Your task to perform on an android device: turn on location history Image 0: 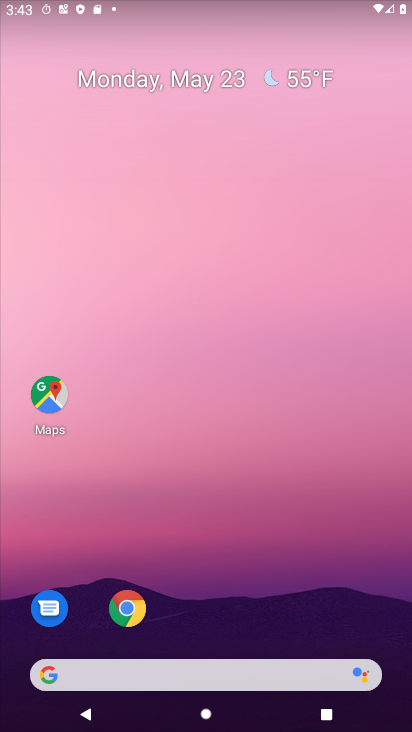
Step 0: drag from (240, 236) to (231, 5)
Your task to perform on an android device: turn on location history Image 1: 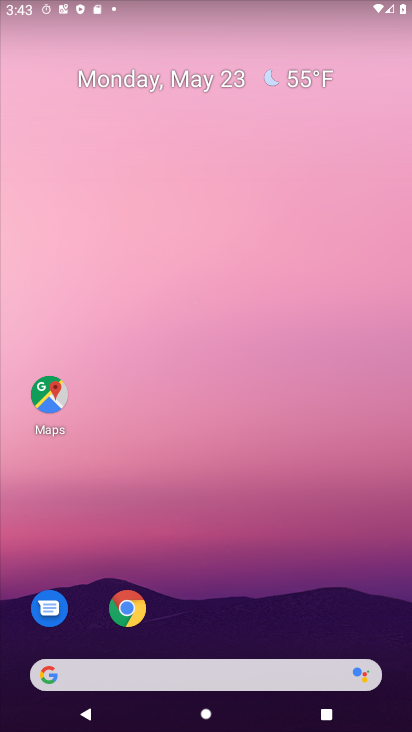
Step 1: drag from (286, 558) to (181, 11)
Your task to perform on an android device: turn on location history Image 2: 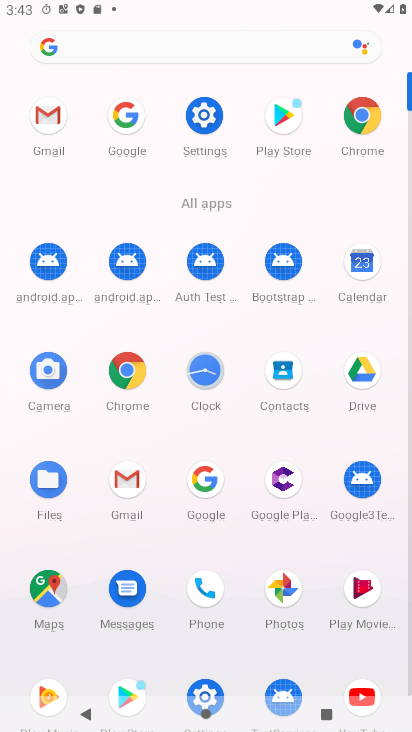
Step 2: click (211, 120)
Your task to perform on an android device: turn on location history Image 3: 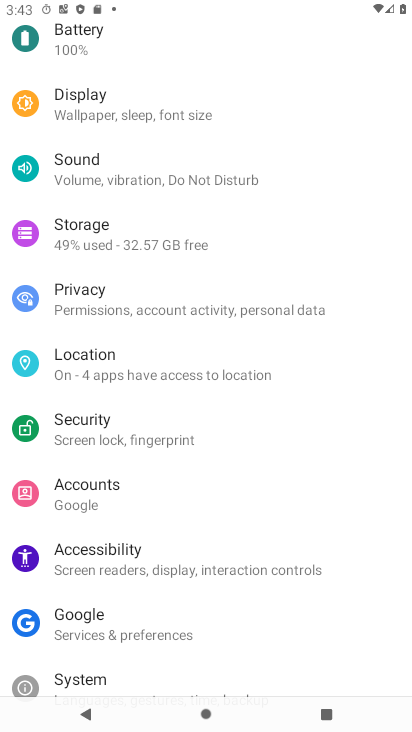
Step 3: click (212, 373)
Your task to perform on an android device: turn on location history Image 4: 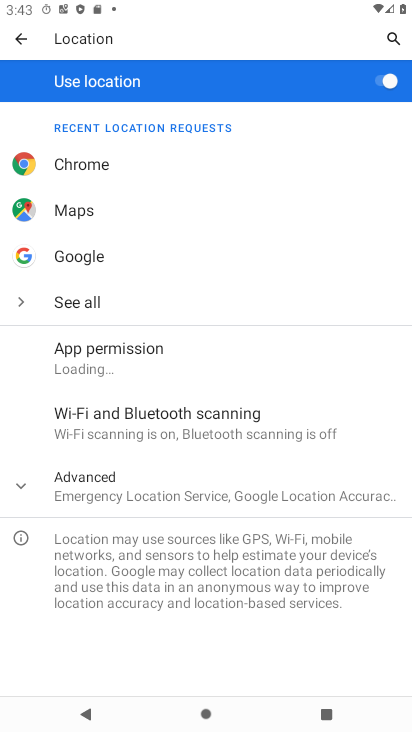
Step 4: click (165, 488)
Your task to perform on an android device: turn on location history Image 5: 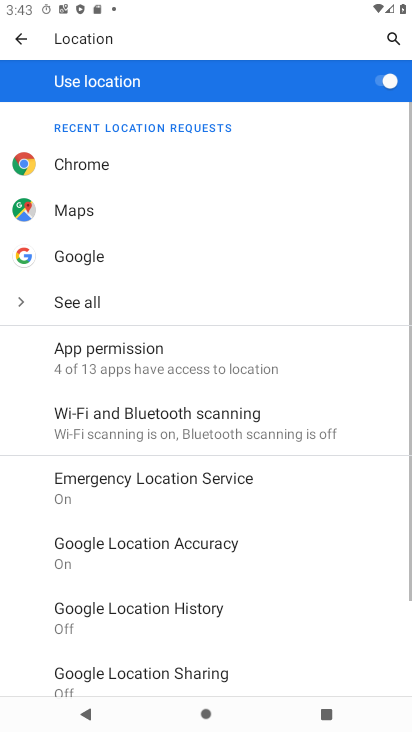
Step 5: click (259, 617)
Your task to perform on an android device: turn on location history Image 6: 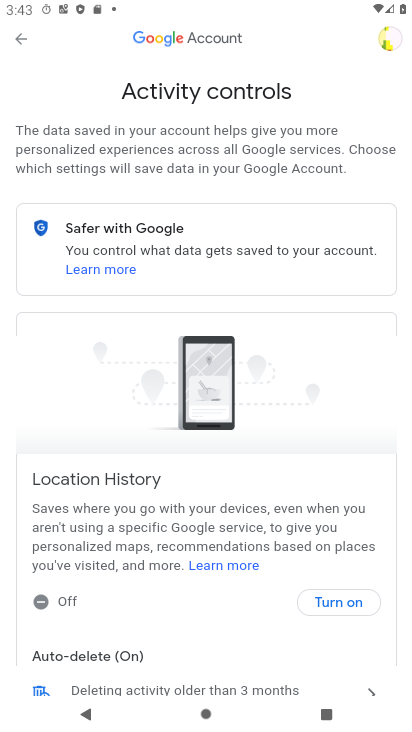
Step 6: click (334, 599)
Your task to perform on an android device: turn on location history Image 7: 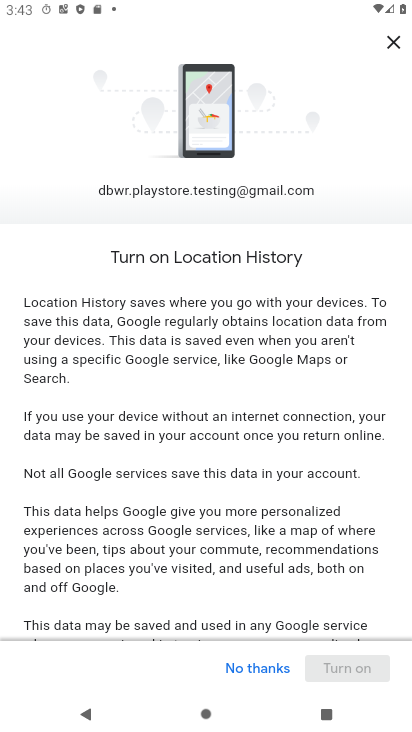
Step 7: drag from (247, 529) to (30, 22)
Your task to perform on an android device: turn on location history Image 8: 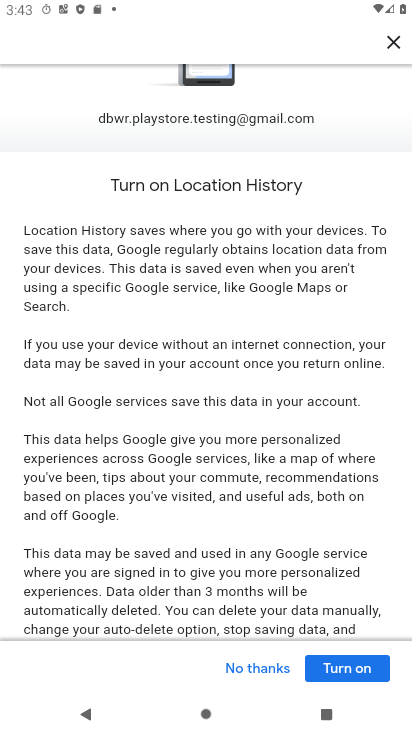
Step 8: click (340, 664)
Your task to perform on an android device: turn on location history Image 9: 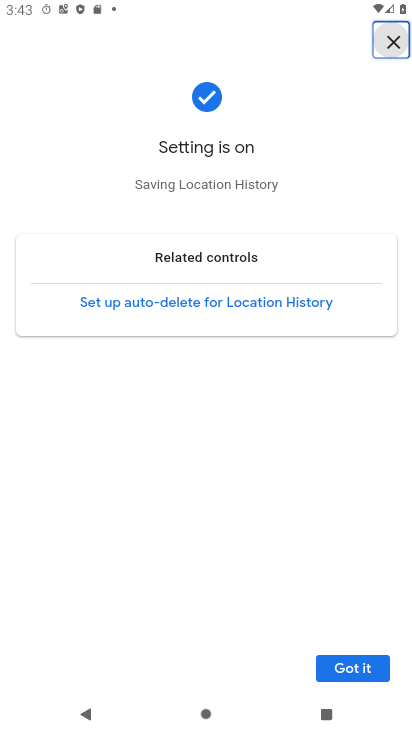
Step 9: click (352, 672)
Your task to perform on an android device: turn on location history Image 10: 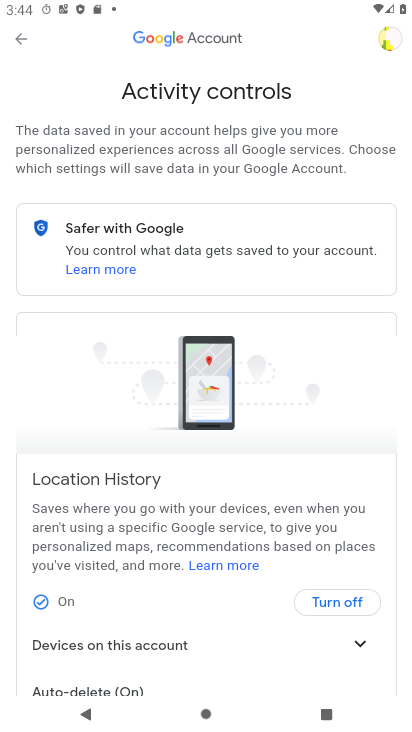
Step 10: task complete